Your task to perform on an android device: Go to wifi settings Image 0: 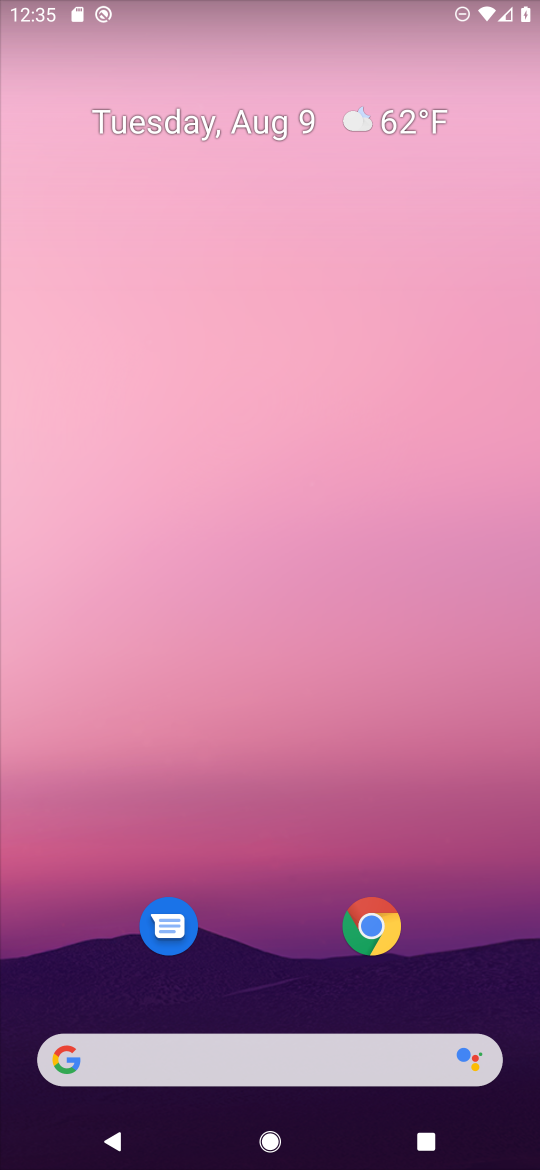
Step 0: drag from (257, 4) to (272, 793)
Your task to perform on an android device: Go to wifi settings Image 1: 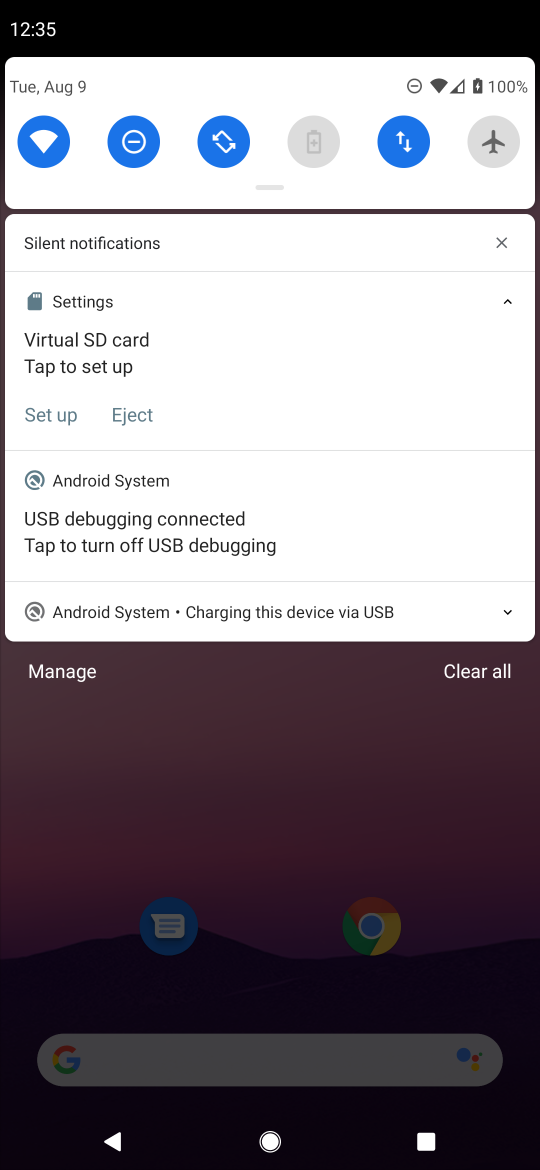
Step 1: click (38, 135)
Your task to perform on an android device: Go to wifi settings Image 2: 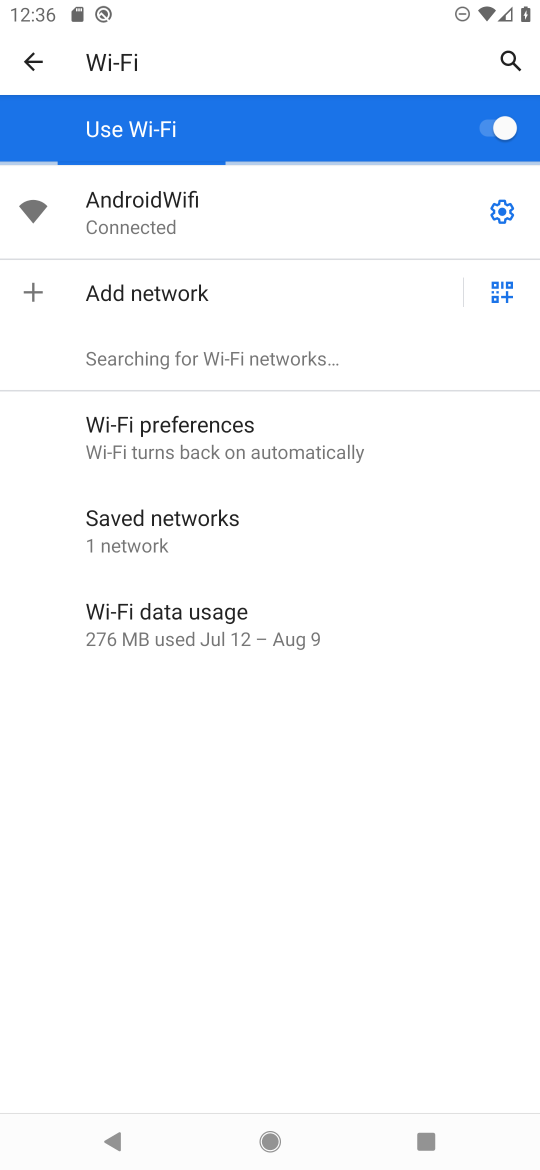
Step 2: click (500, 213)
Your task to perform on an android device: Go to wifi settings Image 3: 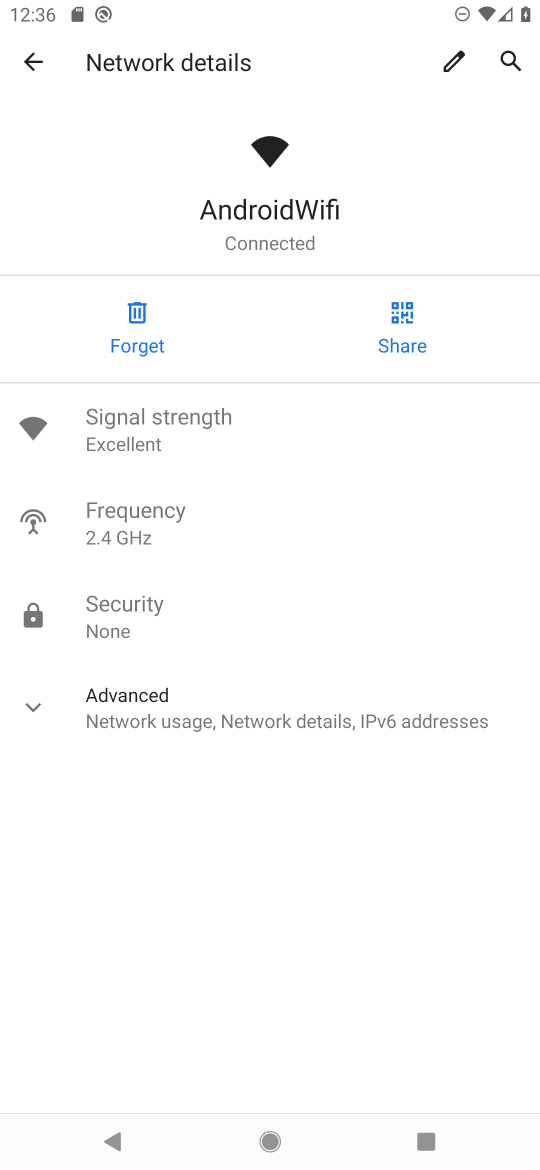
Step 3: task complete